Your task to perform on an android device: install app "Messenger Lite" Image 0: 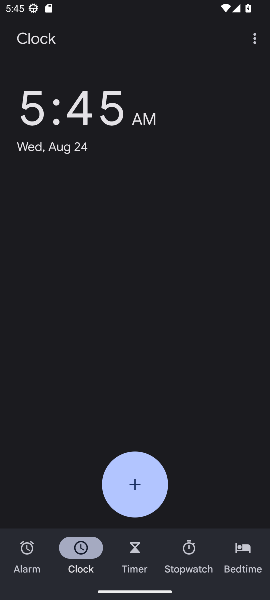
Step 0: press home button
Your task to perform on an android device: install app "Messenger Lite" Image 1: 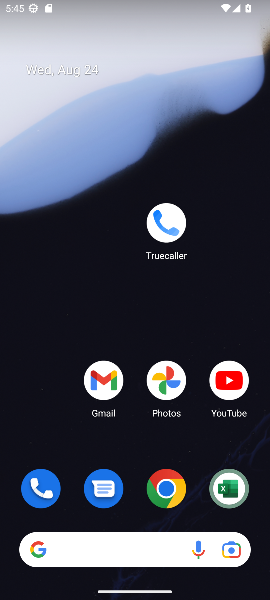
Step 1: drag from (136, 513) to (135, 0)
Your task to perform on an android device: install app "Messenger Lite" Image 2: 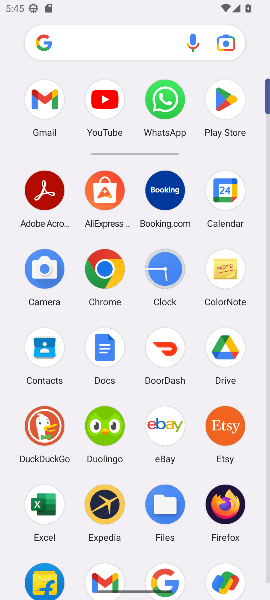
Step 2: click (214, 95)
Your task to perform on an android device: install app "Messenger Lite" Image 3: 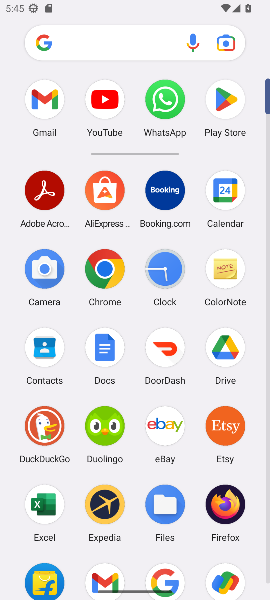
Step 3: click (214, 95)
Your task to perform on an android device: install app "Messenger Lite" Image 4: 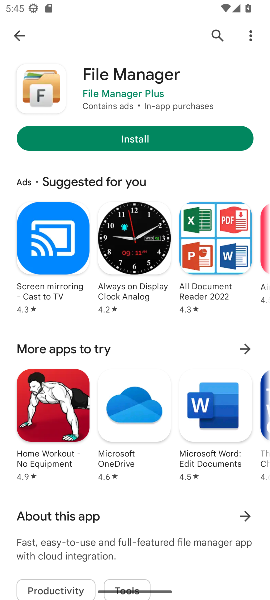
Step 4: click (210, 49)
Your task to perform on an android device: install app "Messenger Lite" Image 5: 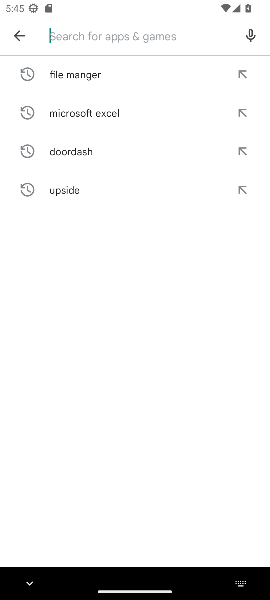
Step 5: type "messenger lite"
Your task to perform on an android device: install app "Messenger Lite" Image 6: 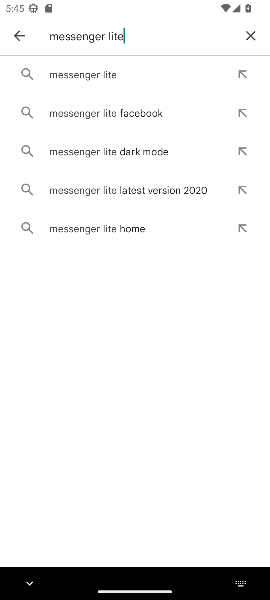
Step 6: click (109, 87)
Your task to perform on an android device: install app "Messenger Lite" Image 7: 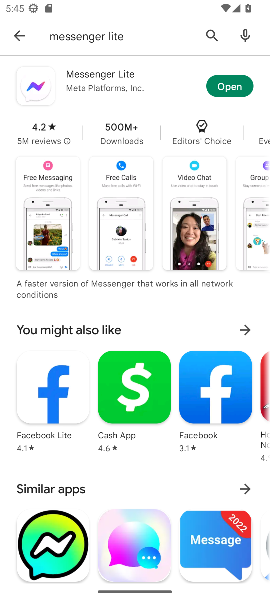
Step 7: click (219, 86)
Your task to perform on an android device: install app "Messenger Lite" Image 8: 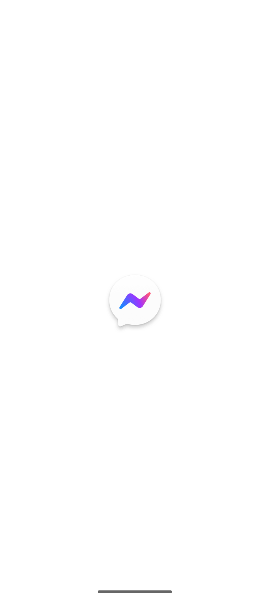
Step 8: task complete